Your task to perform on an android device: toggle show notifications on the lock screen Image 0: 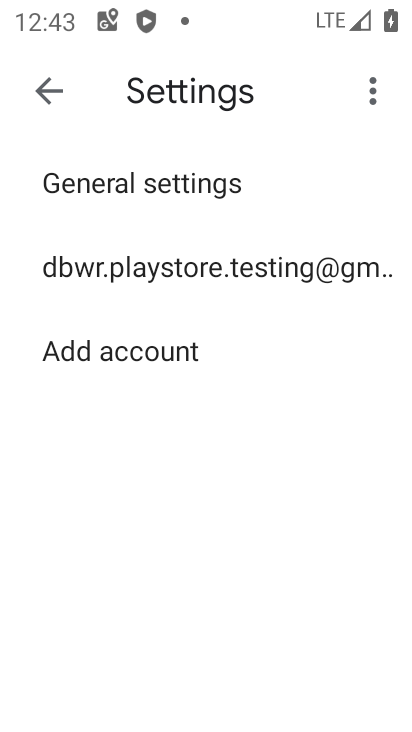
Step 0: press home button
Your task to perform on an android device: toggle show notifications on the lock screen Image 1: 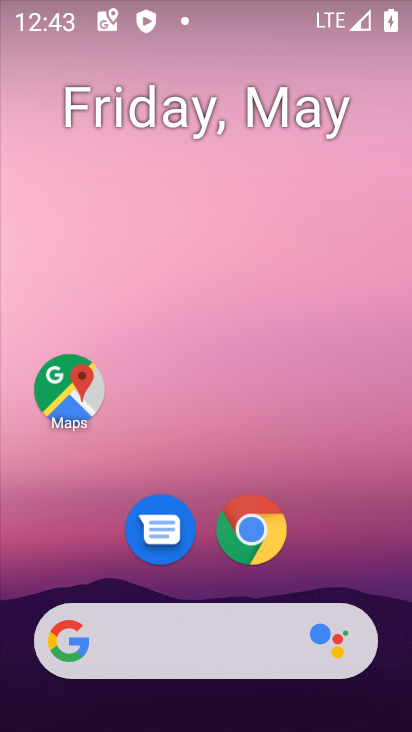
Step 1: drag from (317, 552) to (114, 123)
Your task to perform on an android device: toggle show notifications on the lock screen Image 2: 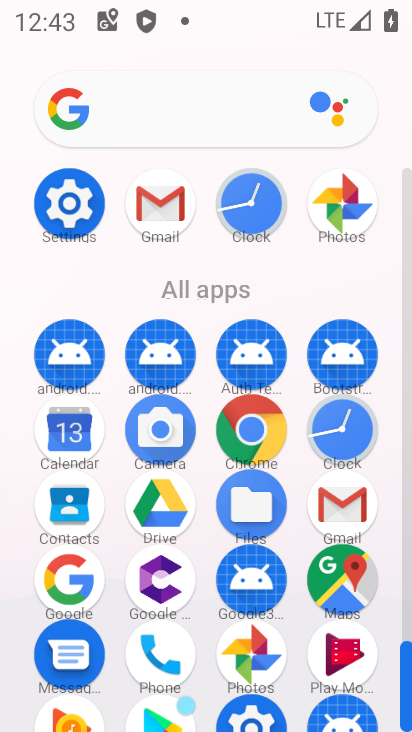
Step 2: click (244, 712)
Your task to perform on an android device: toggle show notifications on the lock screen Image 3: 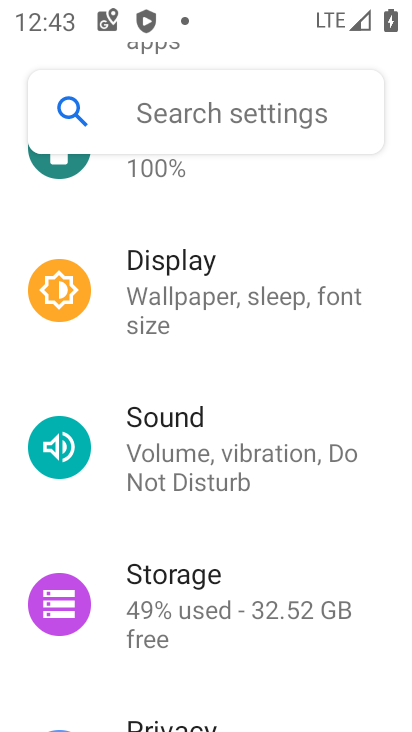
Step 3: drag from (250, 247) to (196, 628)
Your task to perform on an android device: toggle show notifications on the lock screen Image 4: 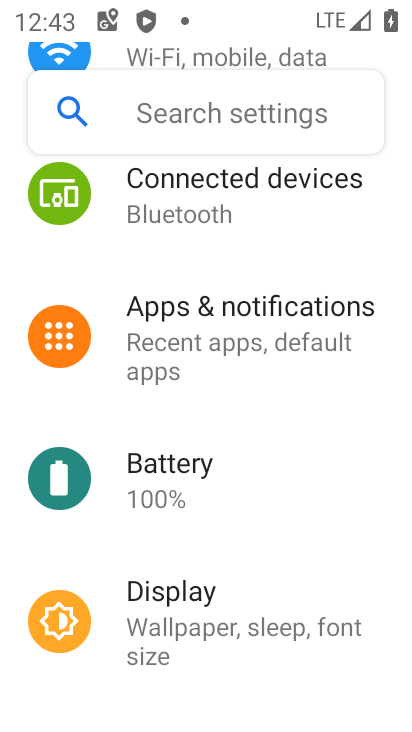
Step 4: click (175, 340)
Your task to perform on an android device: toggle show notifications on the lock screen Image 5: 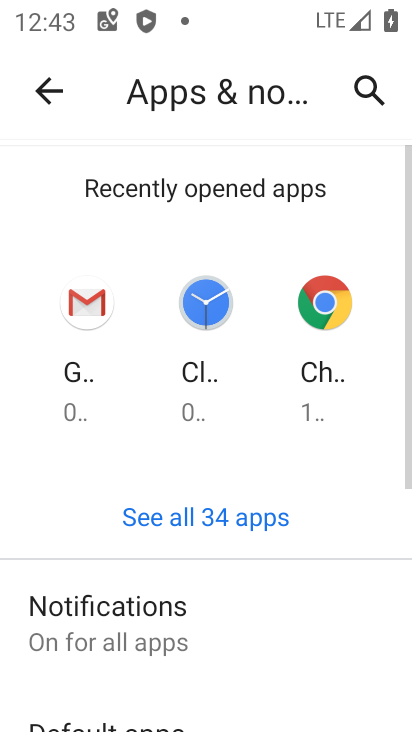
Step 5: click (180, 629)
Your task to perform on an android device: toggle show notifications on the lock screen Image 6: 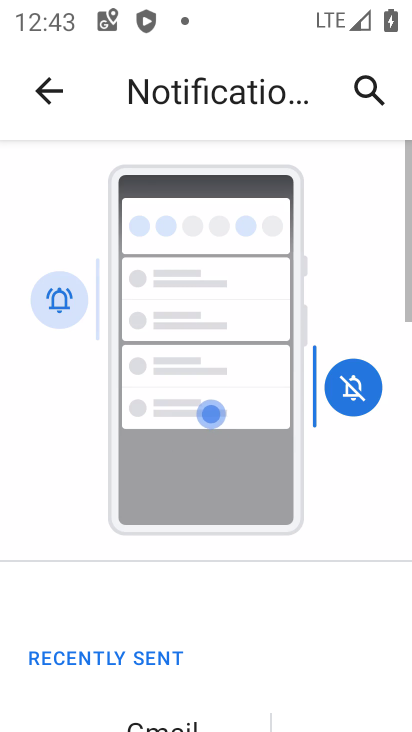
Step 6: drag from (199, 664) to (174, 201)
Your task to perform on an android device: toggle show notifications on the lock screen Image 7: 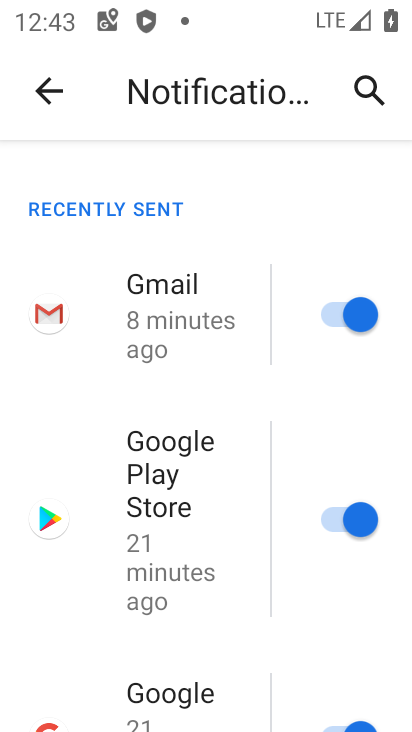
Step 7: drag from (188, 636) to (225, 268)
Your task to perform on an android device: toggle show notifications on the lock screen Image 8: 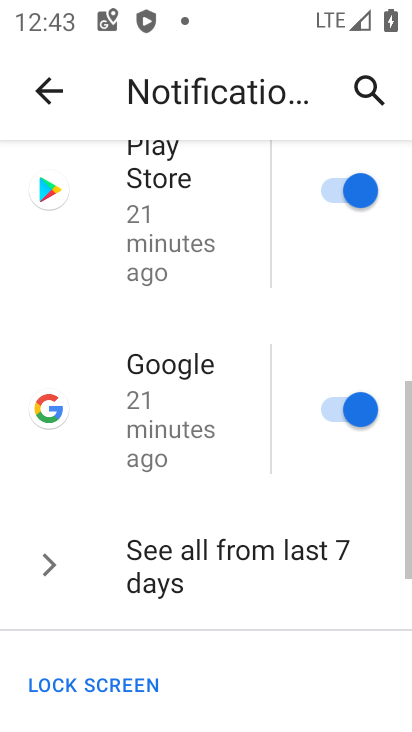
Step 8: drag from (152, 649) to (129, 283)
Your task to perform on an android device: toggle show notifications on the lock screen Image 9: 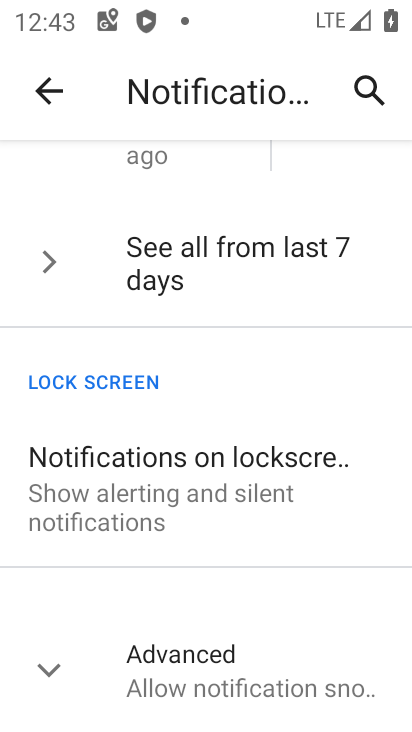
Step 9: click (182, 504)
Your task to perform on an android device: toggle show notifications on the lock screen Image 10: 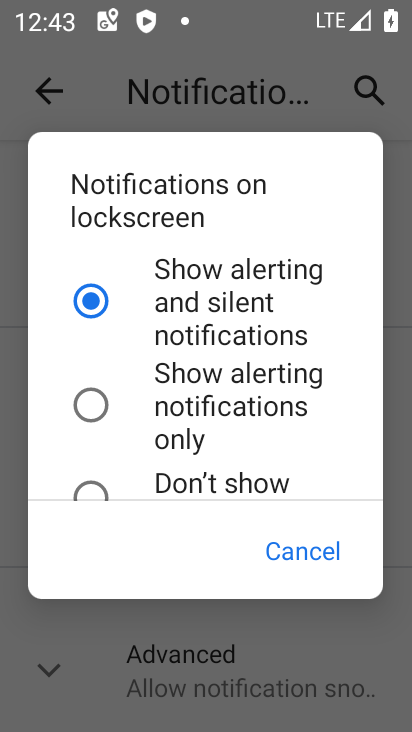
Step 10: task complete